Your task to perform on an android device: When is my next meeting? Image 0: 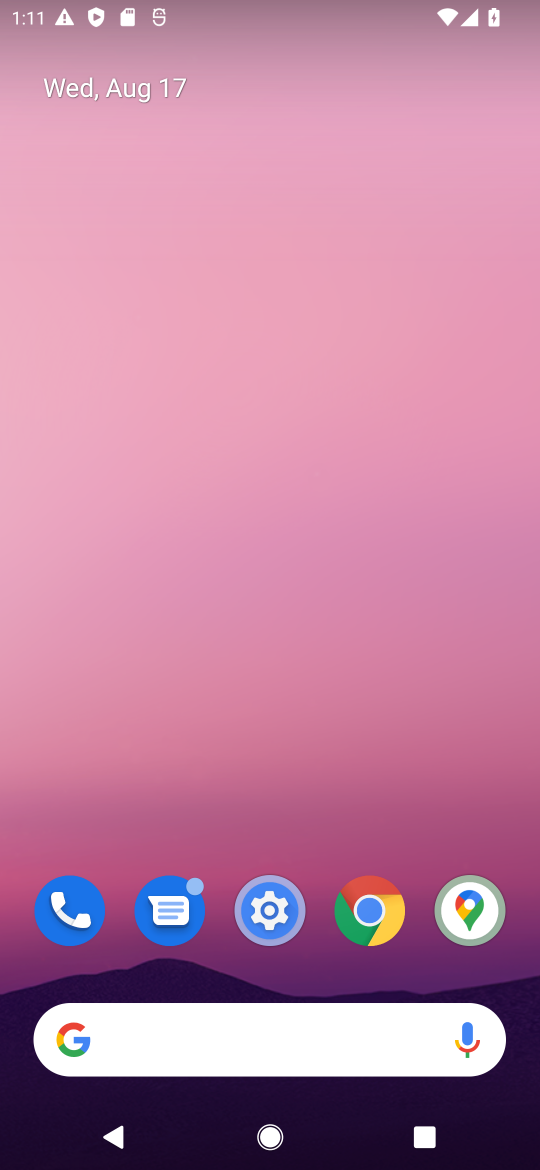
Step 0: drag from (260, 888) to (382, 7)
Your task to perform on an android device: When is my next meeting? Image 1: 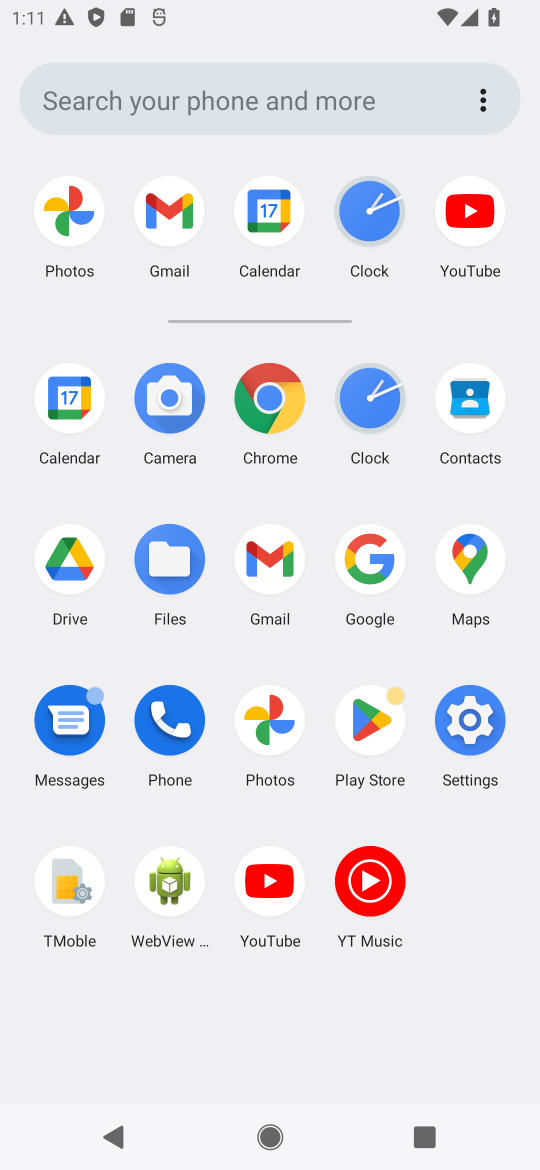
Step 1: click (288, 203)
Your task to perform on an android device: When is my next meeting? Image 2: 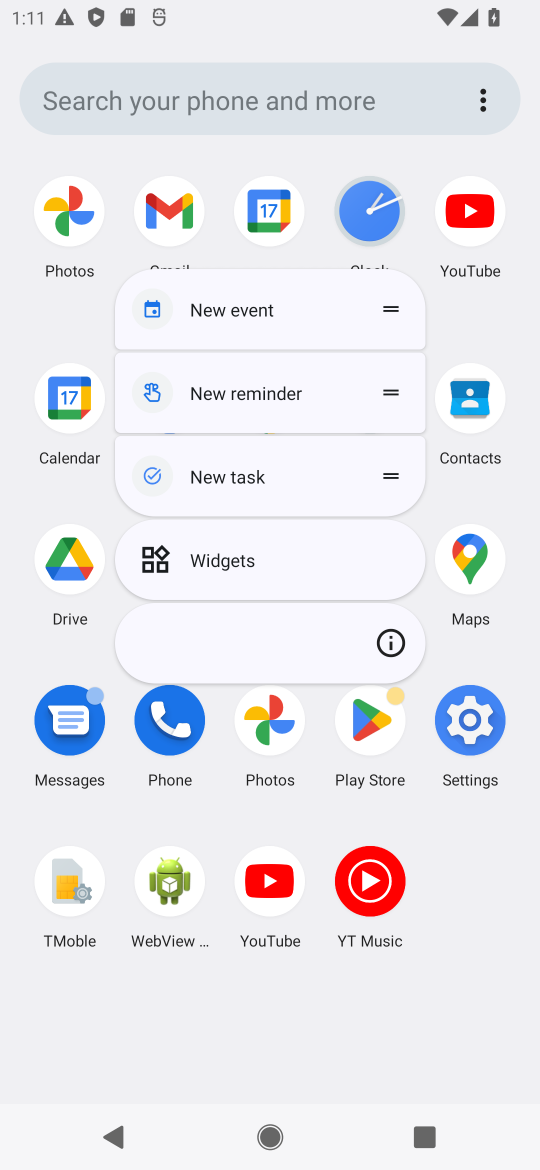
Step 2: click (269, 206)
Your task to perform on an android device: When is my next meeting? Image 3: 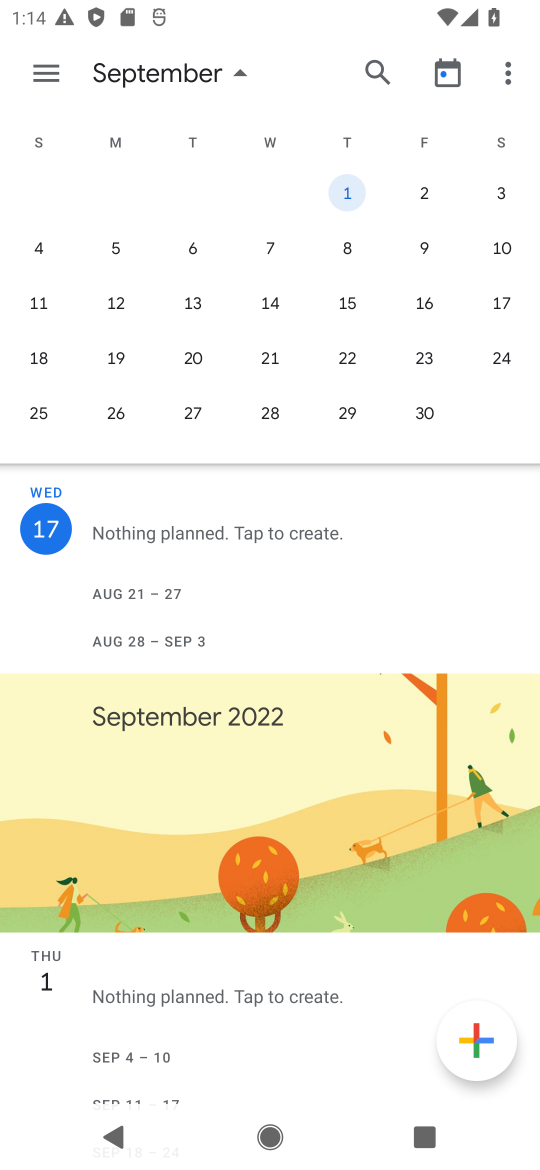
Step 3: press back button
Your task to perform on an android device: When is my next meeting? Image 4: 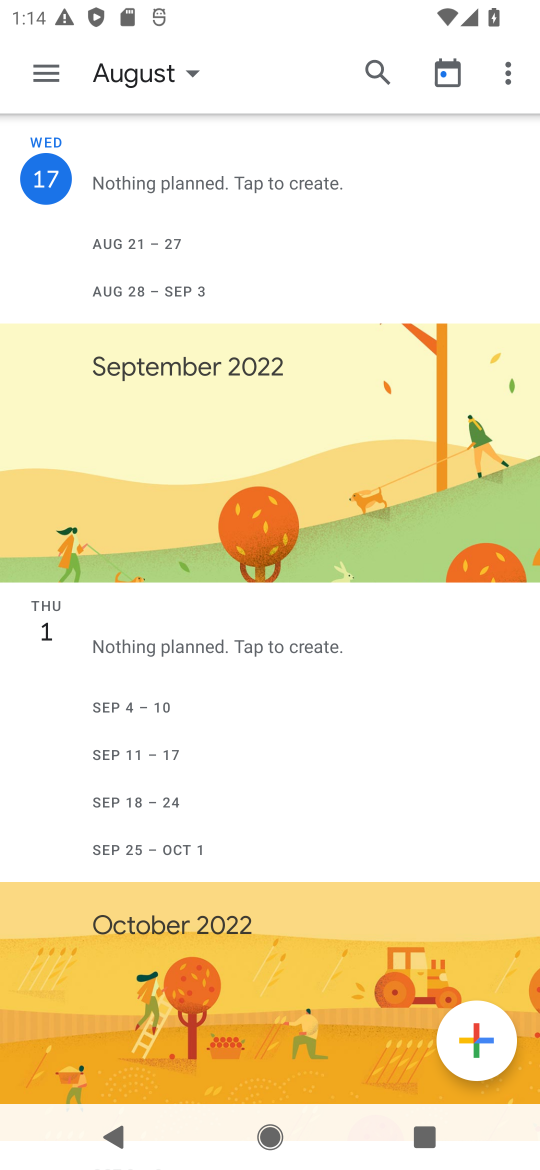
Step 4: press back button
Your task to perform on an android device: When is my next meeting? Image 5: 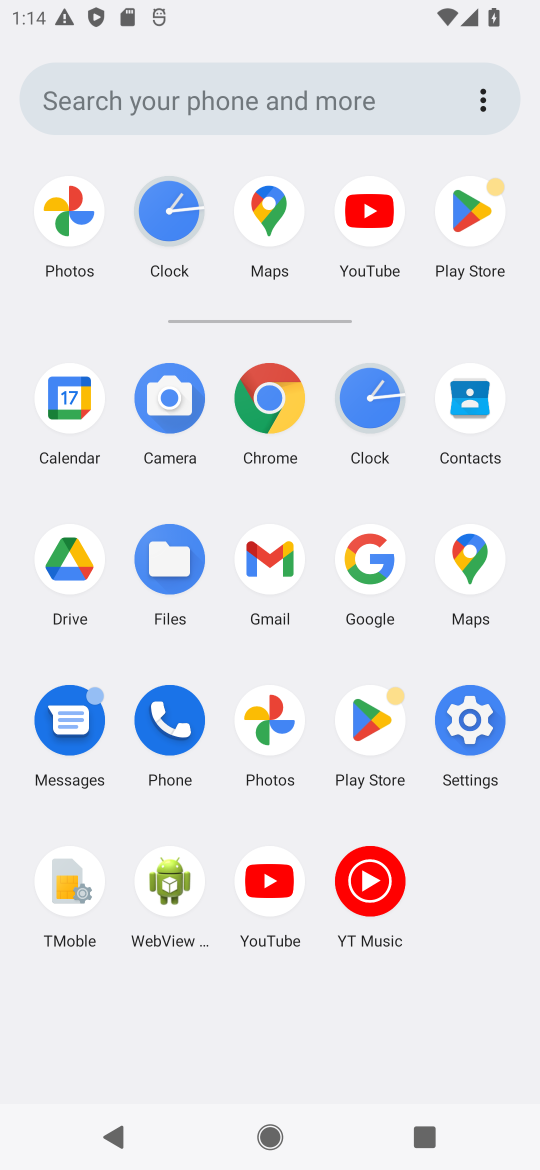
Step 5: click (62, 392)
Your task to perform on an android device: When is my next meeting? Image 6: 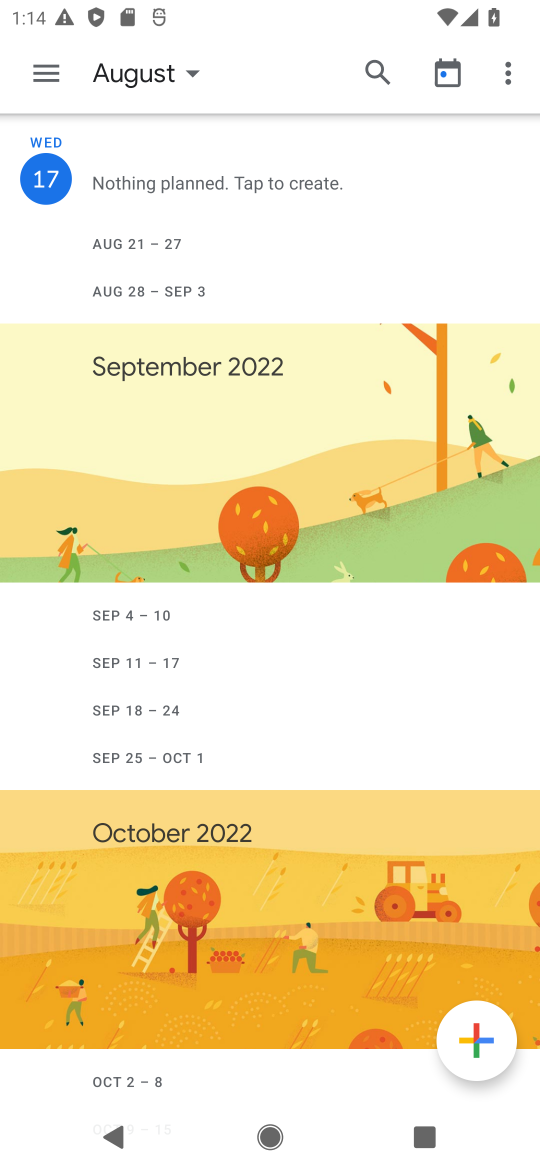
Step 6: task complete